Your task to perform on an android device: Open Chrome and go to the settings page Image 0: 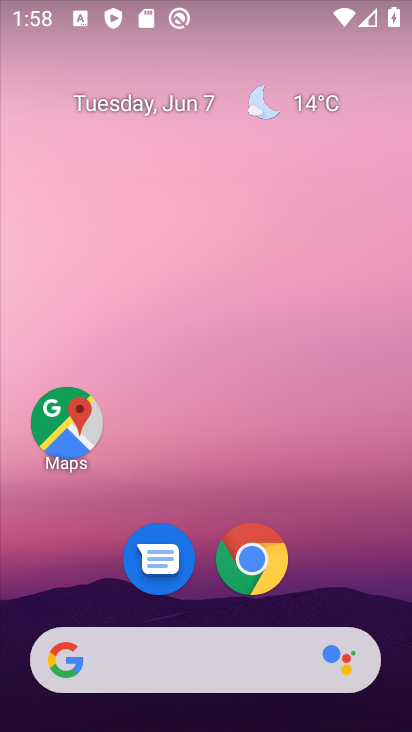
Step 0: click (255, 542)
Your task to perform on an android device: Open Chrome and go to the settings page Image 1: 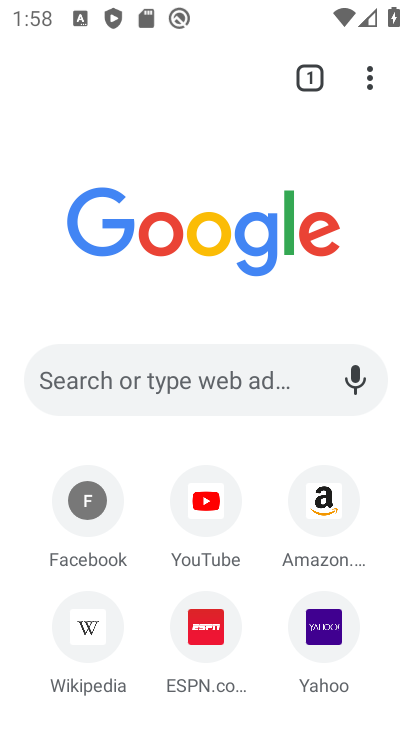
Step 1: click (371, 73)
Your task to perform on an android device: Open Chrome and go to the settings page Image 2: 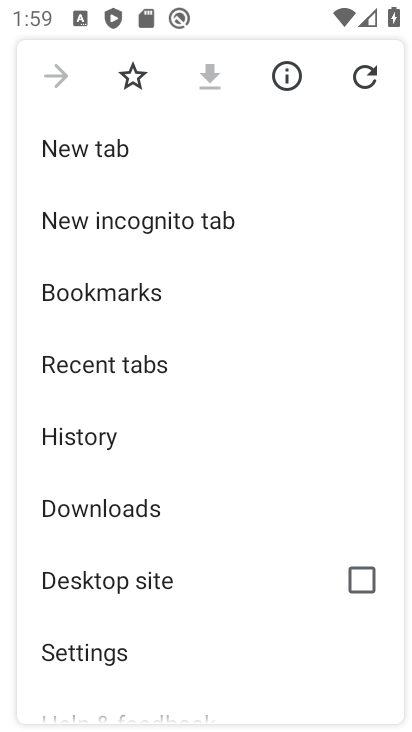
Step 2: click (47, 662)
Your task to perform on an android device: Open Chrome and go to the settings page Image 3: 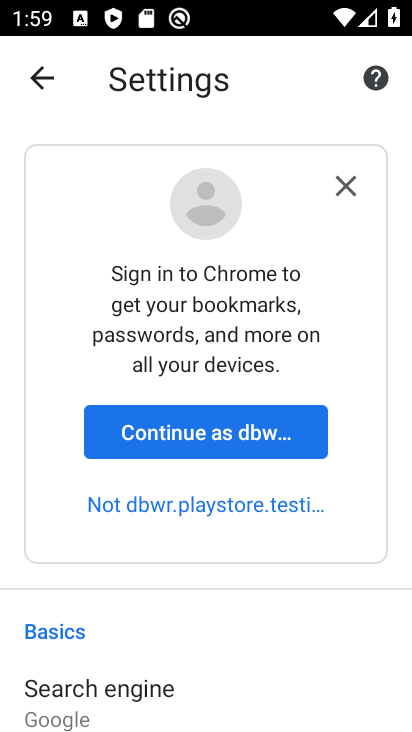
Step 3: task complete